Your task to perform on an android device: Do I have any events today? Image 0: 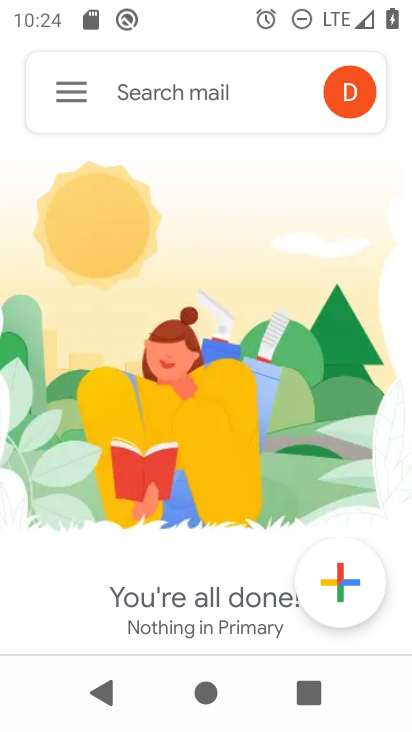
Step 0: press home button
Your task to perform on an android device: Do I have any events today? Image 1: 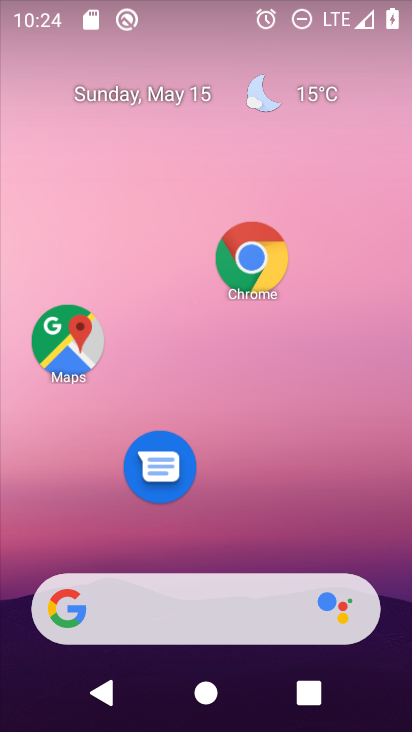
Step 1: click (130, 111)
Your task to perform on an android device: Do I have any events today? Image 2: 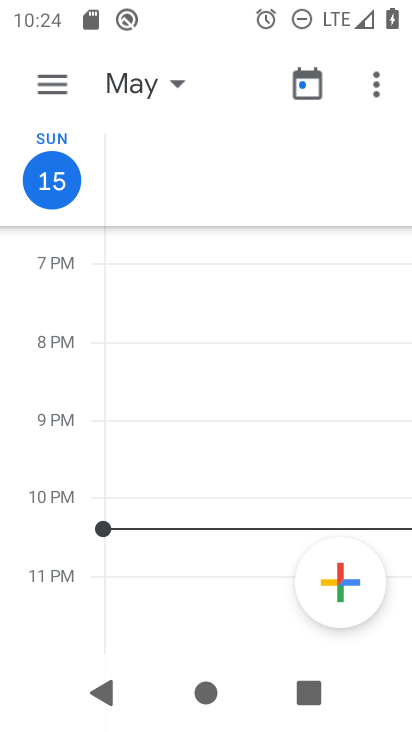
Step 2: click (132, 96)
Your task to perform on an android device: Do I have any events today? Image 3: 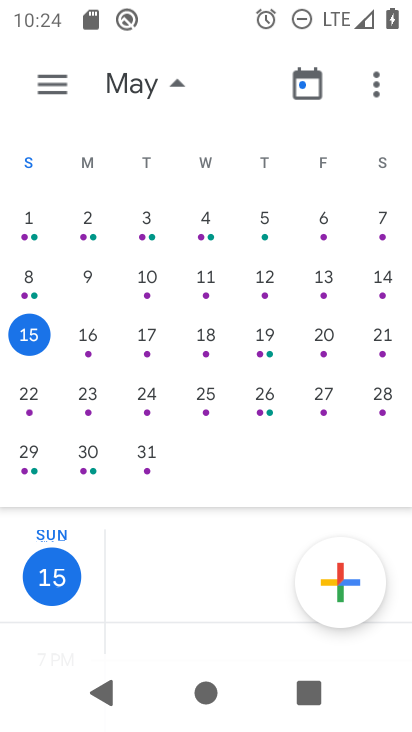
Step 3: click (34, 348)
Your task to perform on an android device: Do I have any events today? Image 4: 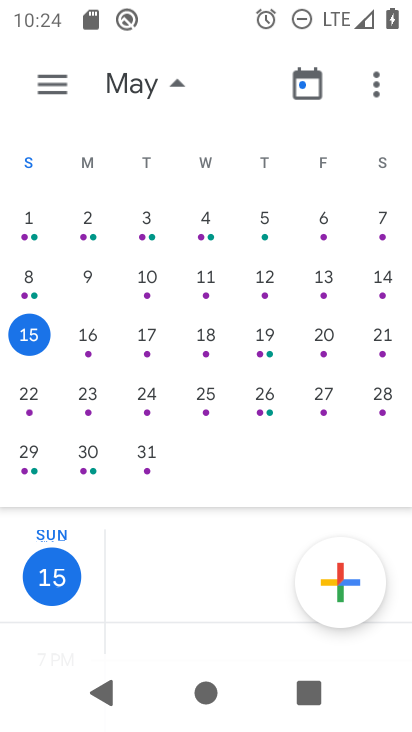
Step 4: click (105, 578)
Your task to perform on an android device: Do I have any events today? Image 5: 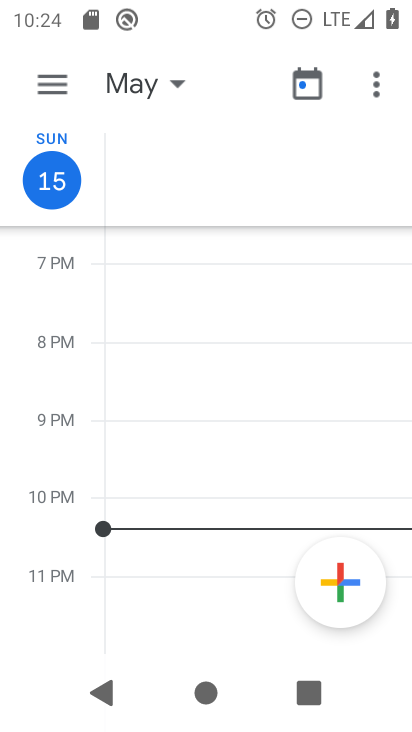
Step 5: drag from (154, 570) to (114, 27)
Your task to perform on an android device: Do I have any events today? Image 6: 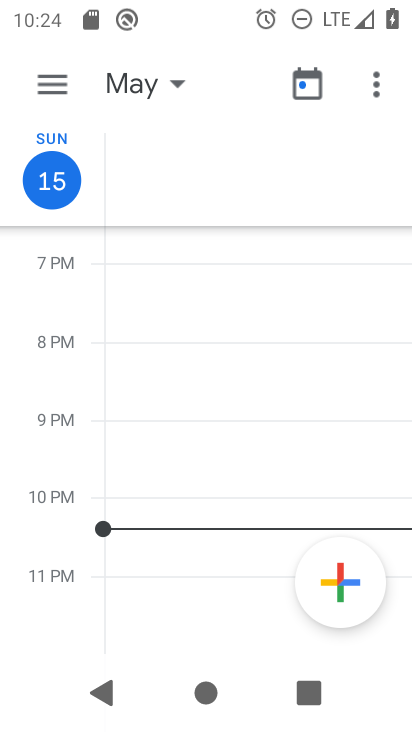
Step 6: click (54, 86)
Your task to perform on an android device: Do I have any events today? Image 7: 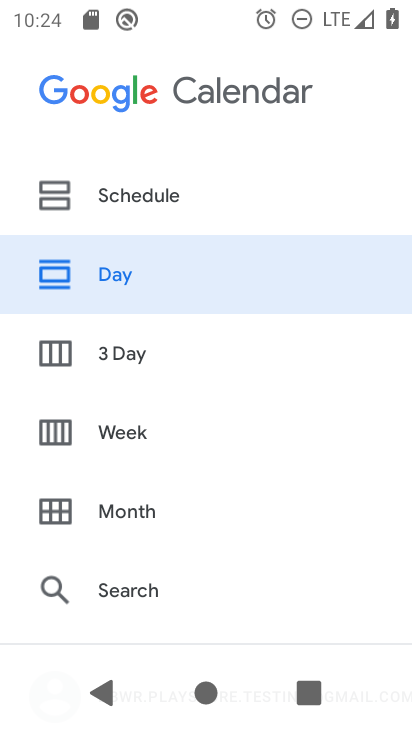
Step 7: click (155, 192)
Your task to perform on an android device: Do I have any events today? Image 8: 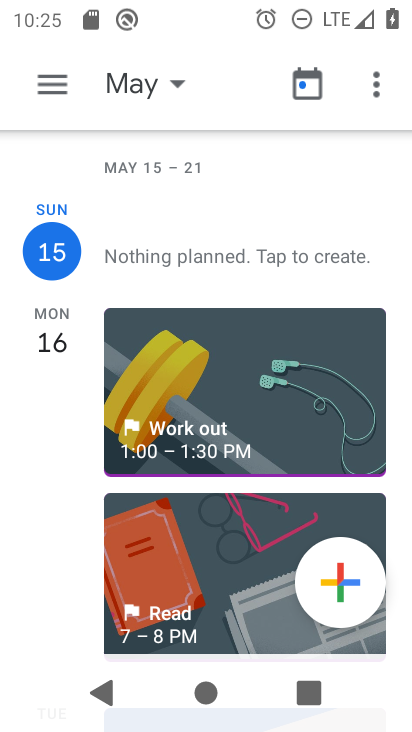
Step 8: task complete